Your task to perform on an android device: Search for the best lawnmowers on Lowes.com Image 0: 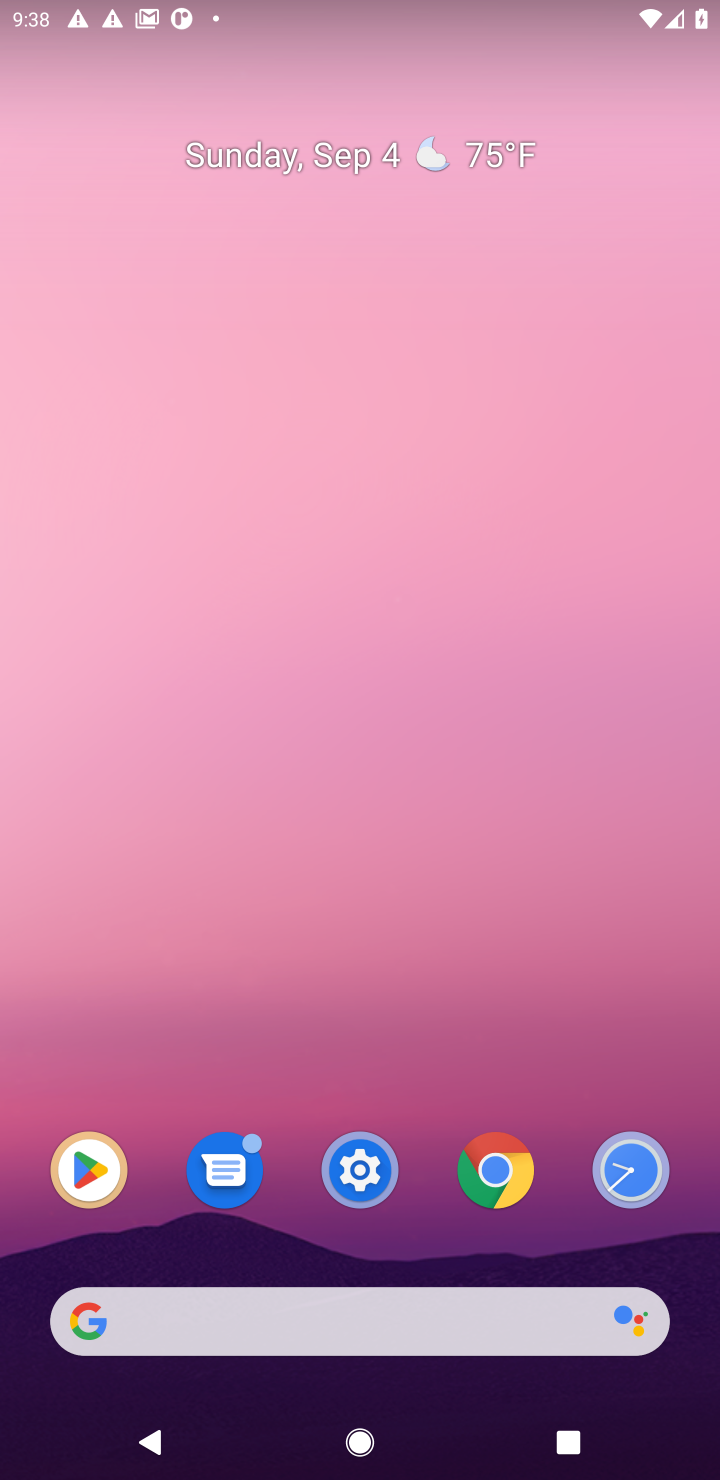
Step 0: click (502, 1163)
Your task to perform on an android device: Search for the best lawnmowers on Lowes.com Image 1: 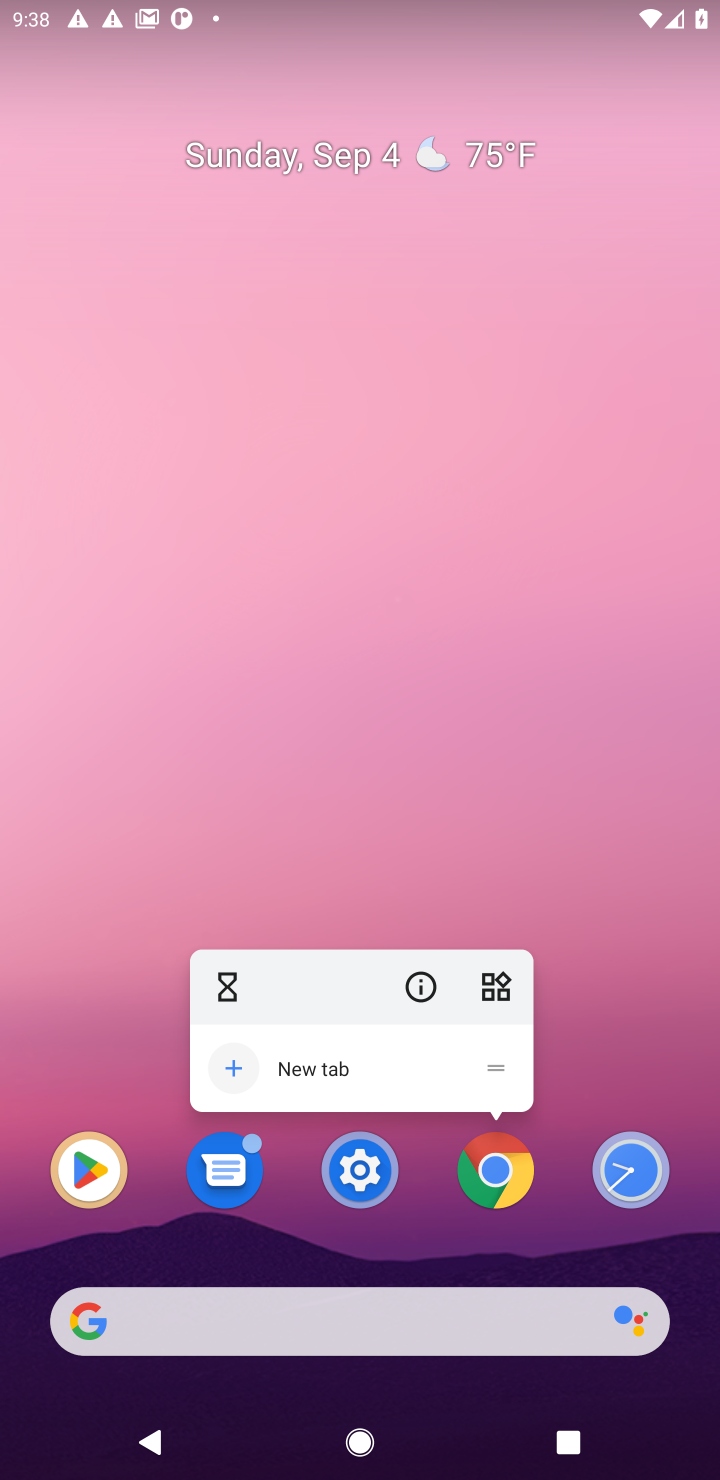
Step 1: click (502, 1163)
Your task to perform on an android device: Search for the best lawnmowers on Lowes.com Image 2: 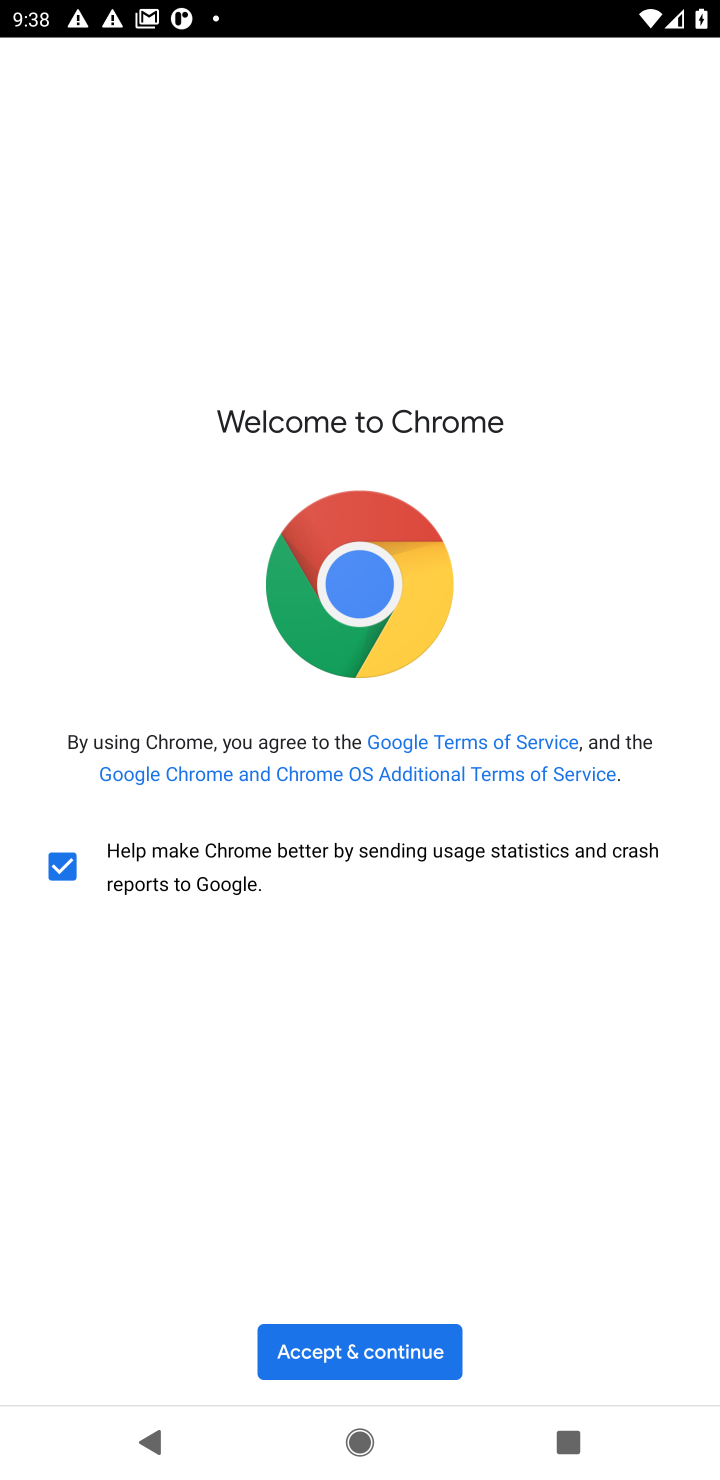
Step 2: click (302, 1346)
Your task to perform on an android device: Search for the best lawnmowers on Lowes.com Image 3: 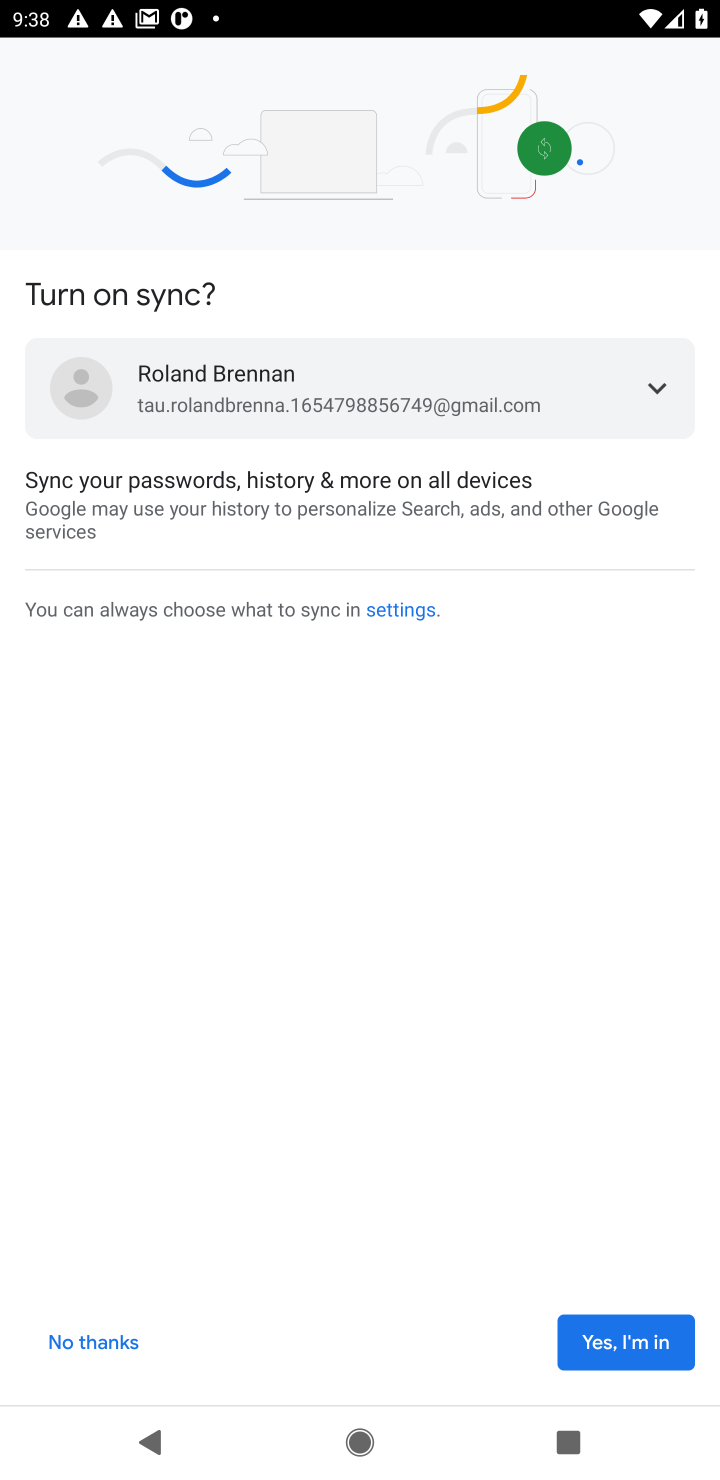
Step 3: click (675, 1331)
Your task to perform on an android device: Search for the best lawnmowers on Lowes.com Image 4: 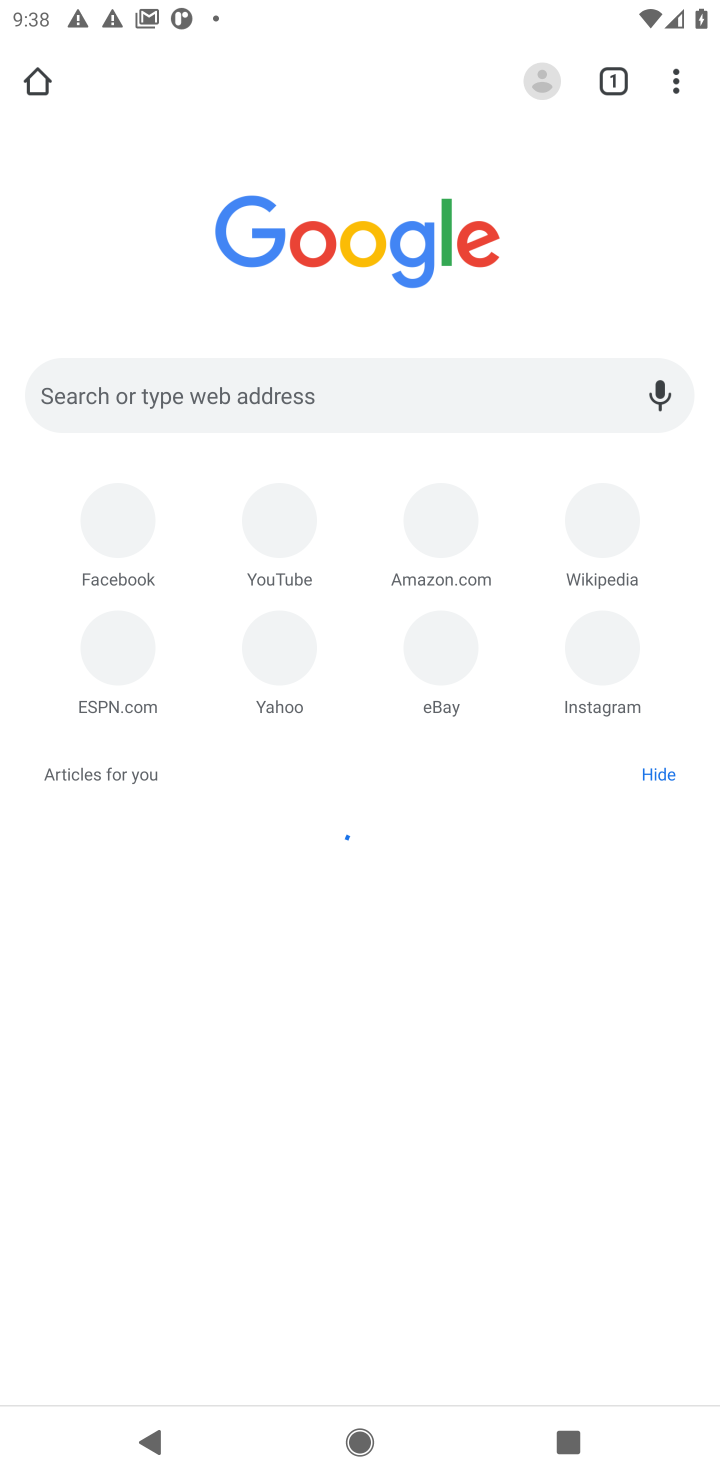
Step 4: click (401, 392)
Your task to perform on an android device: Search for the best lawnmowers on Lowes.com Image 5: 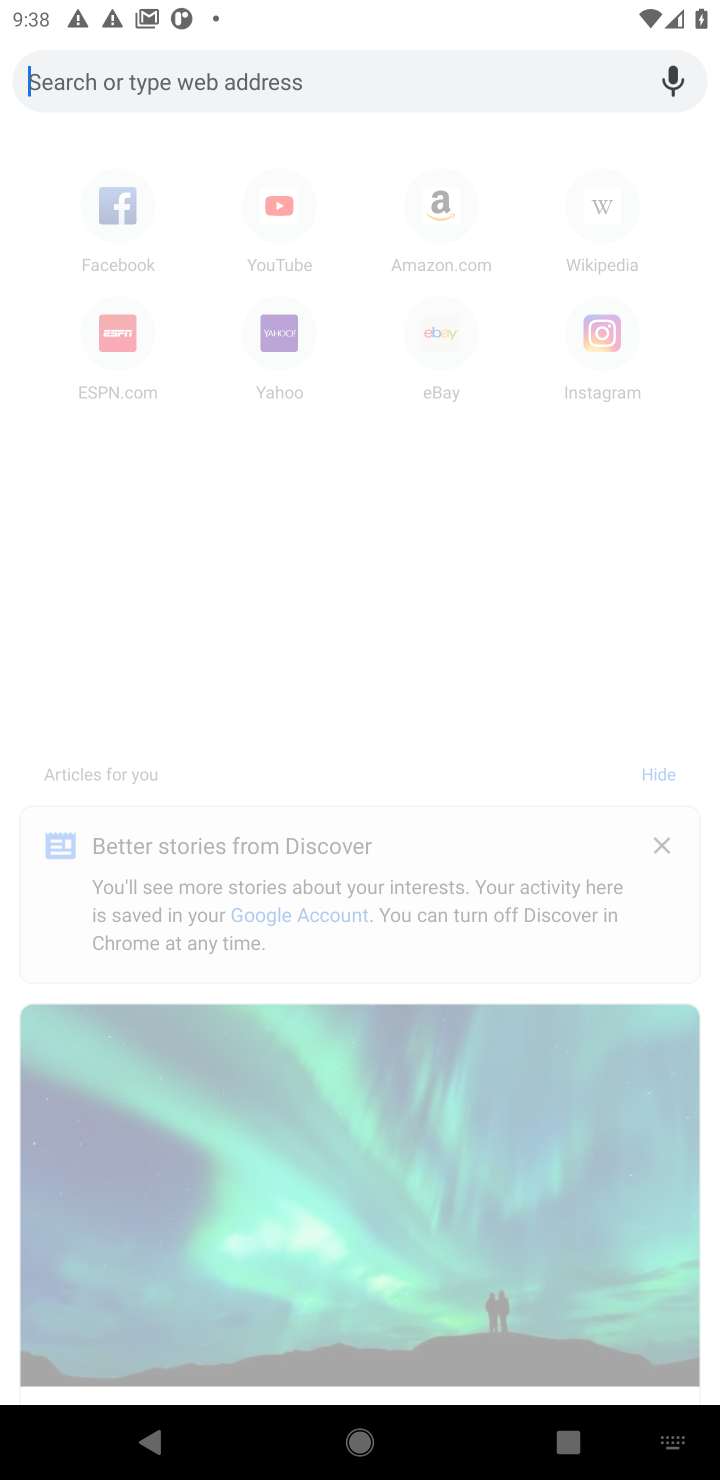
Step 5: type "lowes.com"
Your task to perform on an android device: Search for the best lawnmowers on Lowes.com Image 6: 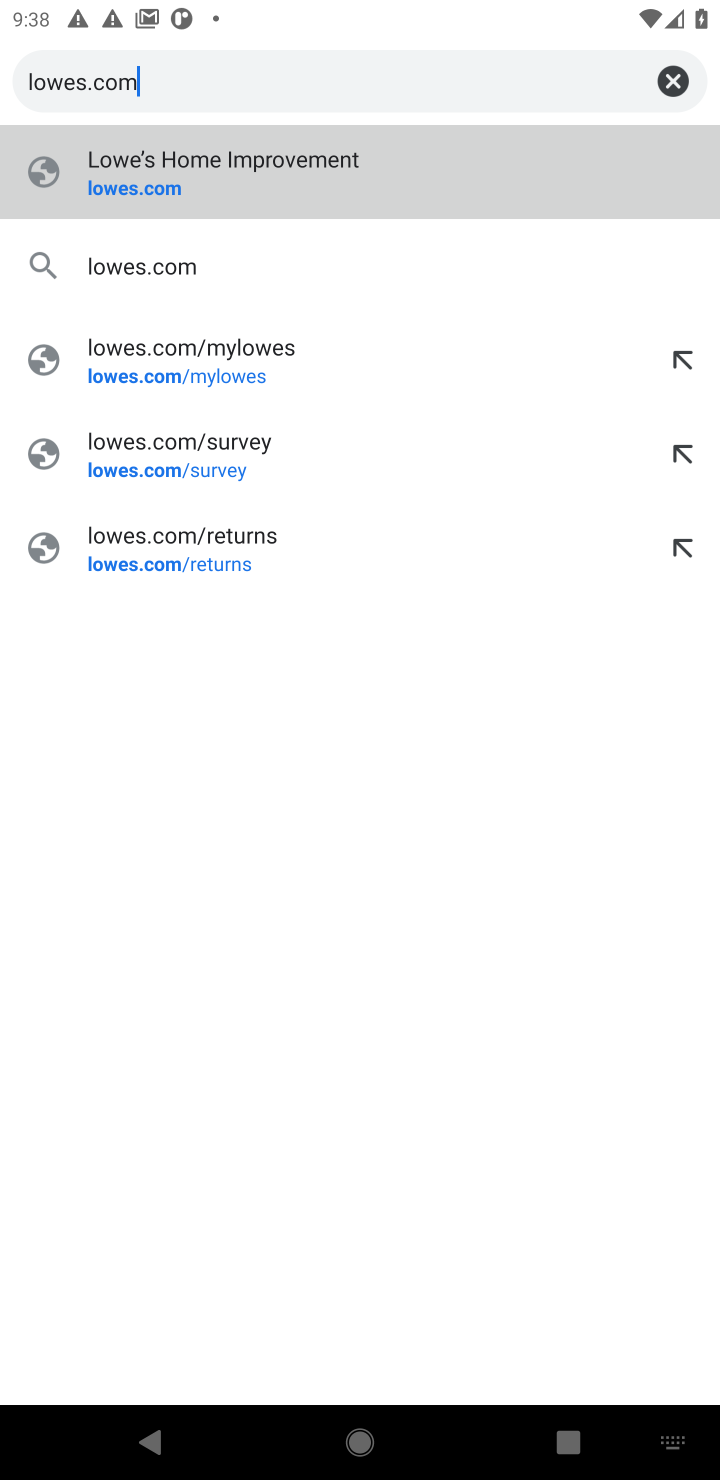
Step 6: click (357, 258)
Your task to perform on an android device: Search for the best lawnmowers on Lowes.com Image 7: 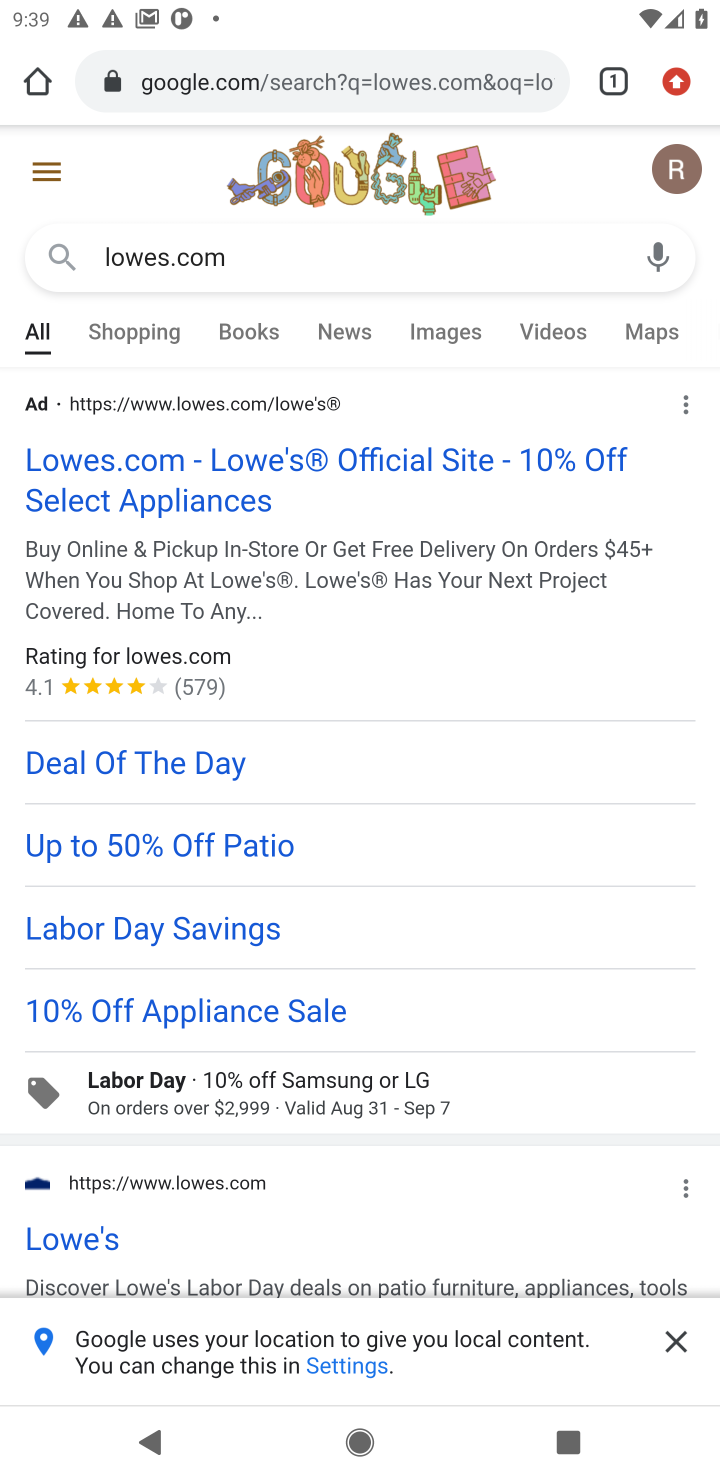
Step 7: click (218, 473)
Your task to perform on an android device: Search for the best lawnmowers on Lowes.com Image 8: 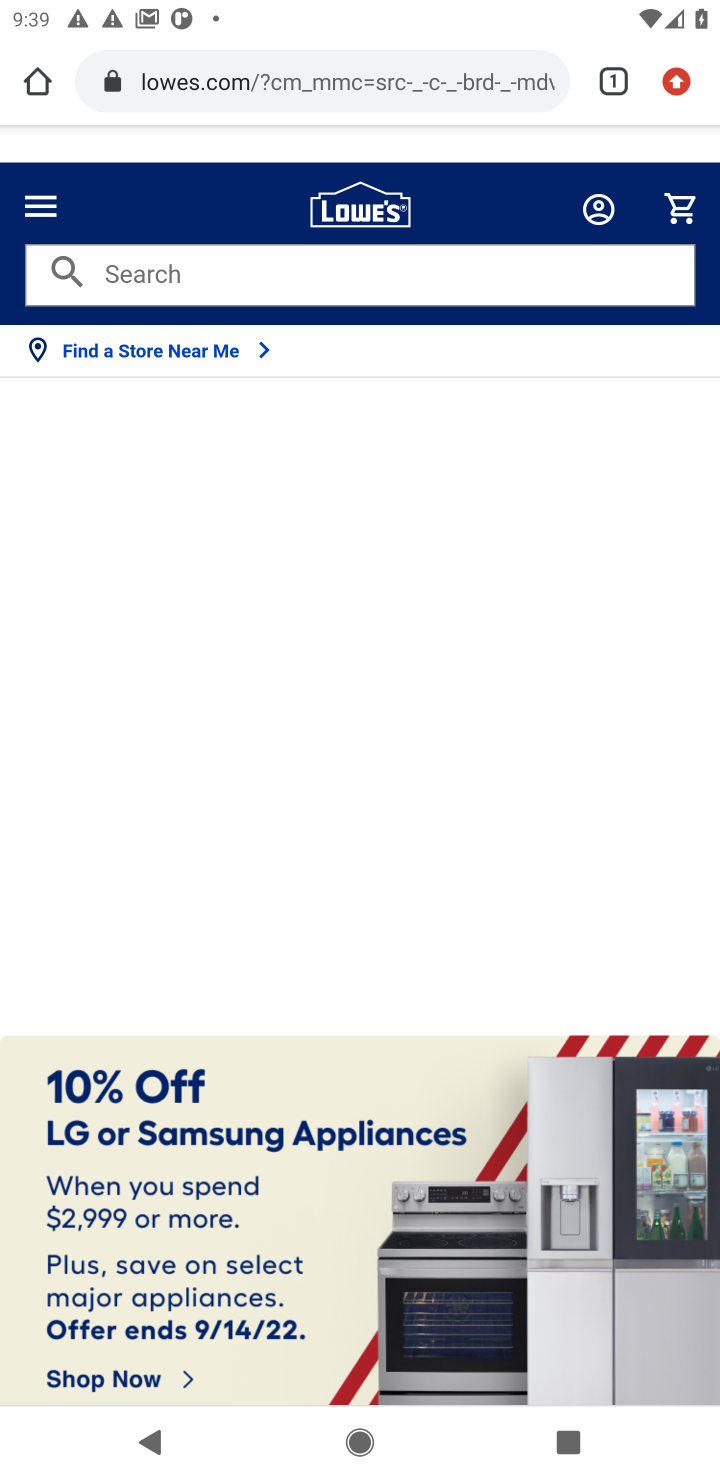
Step 8: click (396, 280)
Your task to perform on an android device: Search for the best lawnmowers on Lowes.com Image 9: 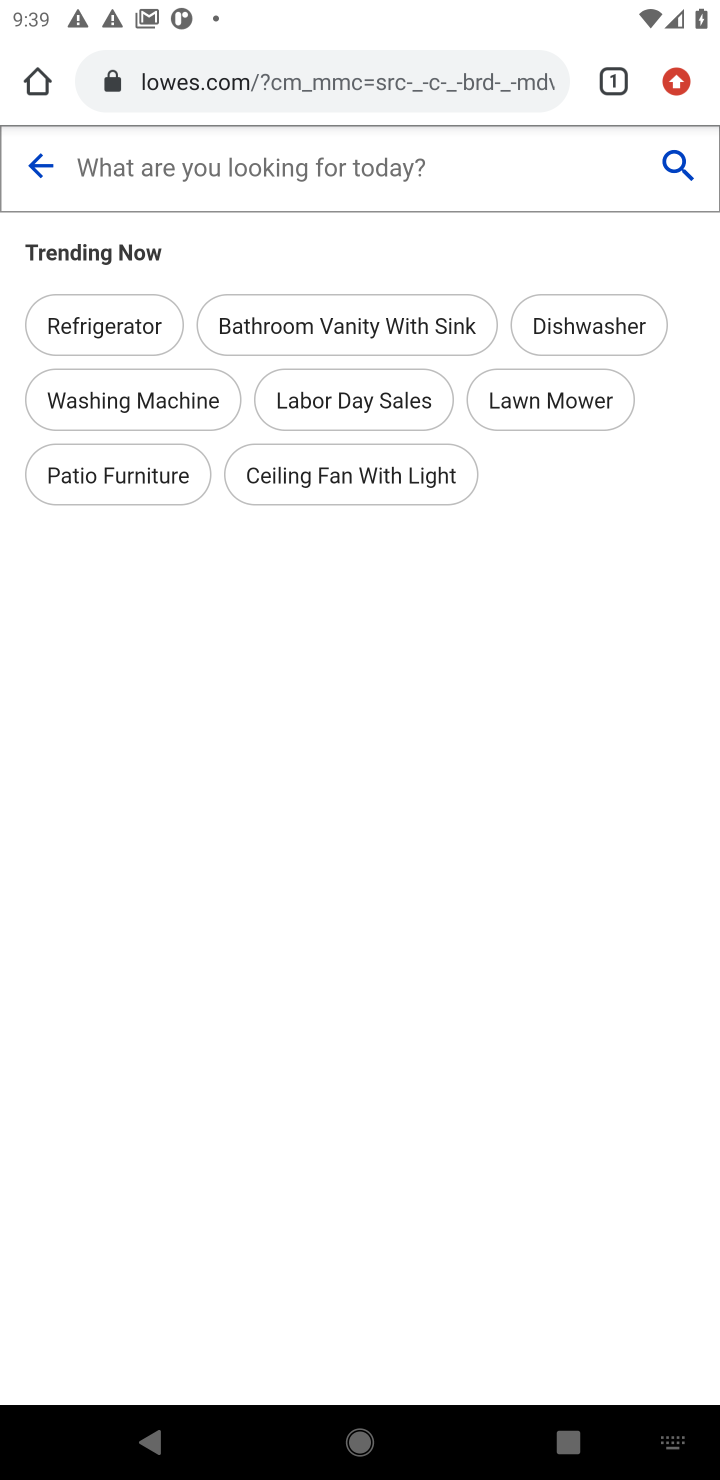
Step 9: type ""
Your task to perform on an android device: Search for the best lawnmowers on Lowes.com Image 10: 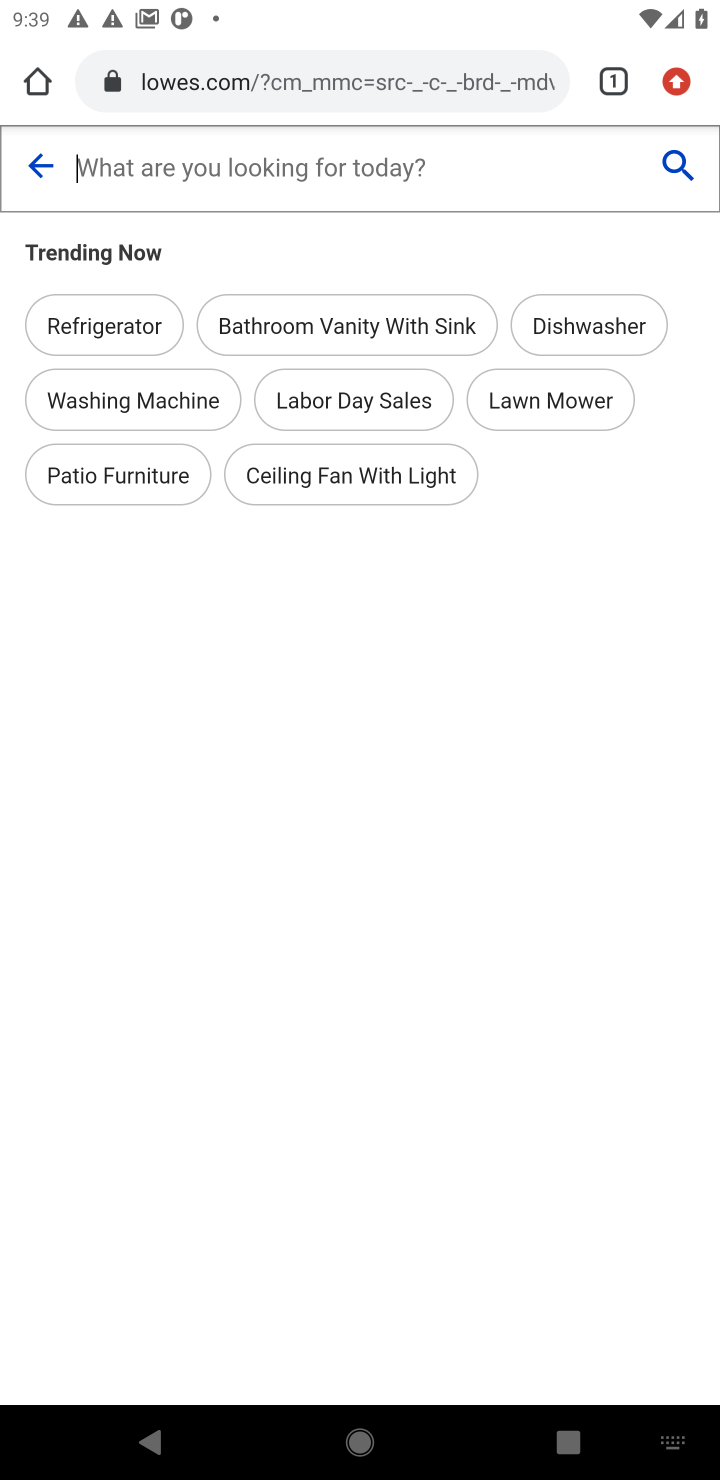
Step 10: type " the best lawnmowers"
Your task to perform on an android device: Search for the best lawnmowers on Lowes.com Image 11: 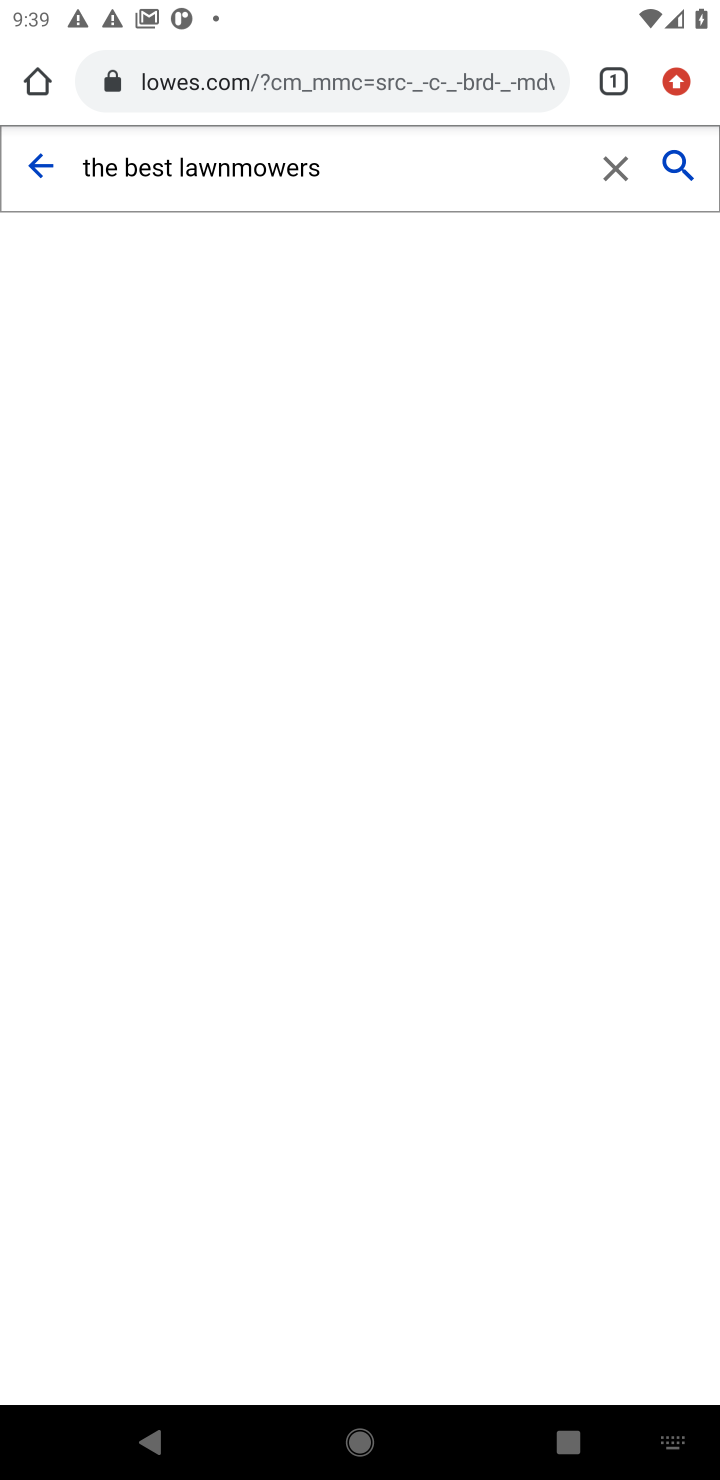
Step 11: click (677, 158)
Your task to perform on an android device: Search for the best lawnmowers on Lowes.com Image 12: 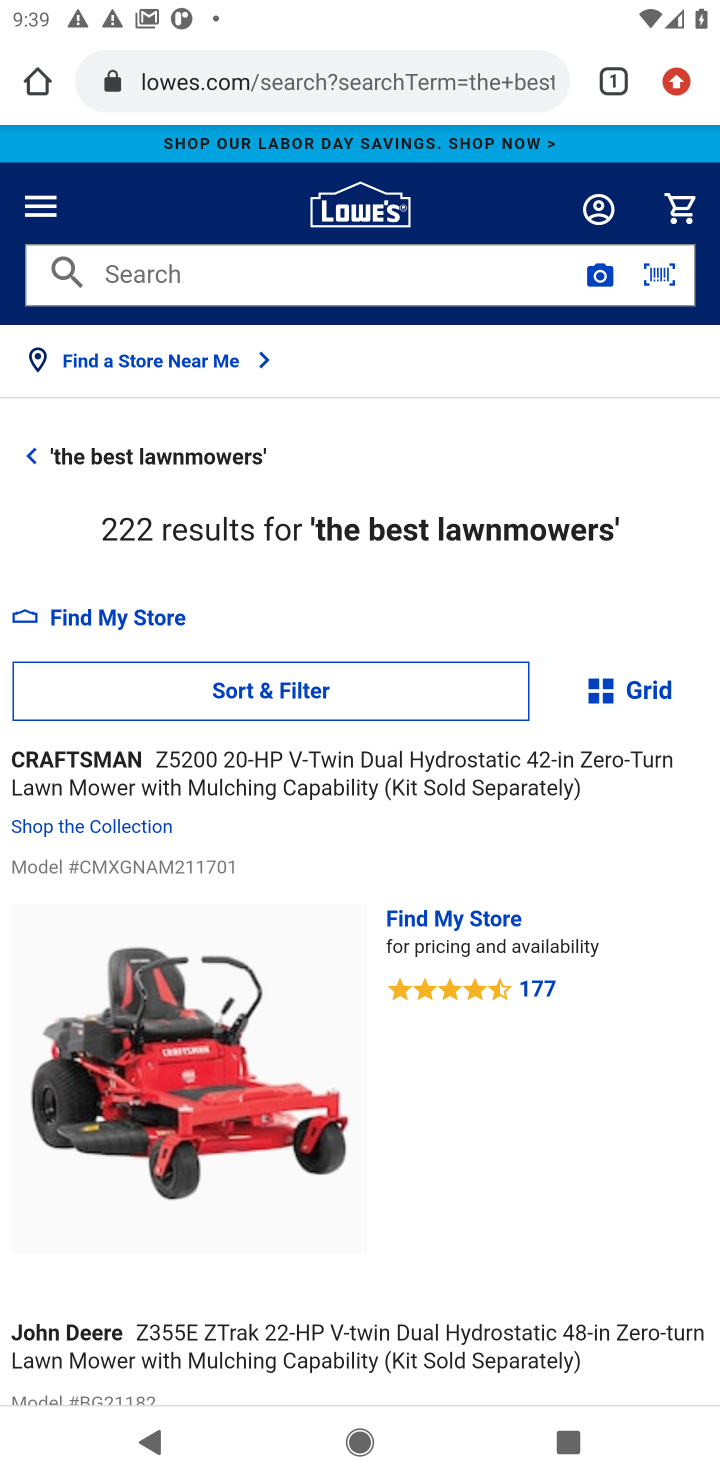
Step 12: task complete